Your task to perform on an android device: Check the weather Image 0: 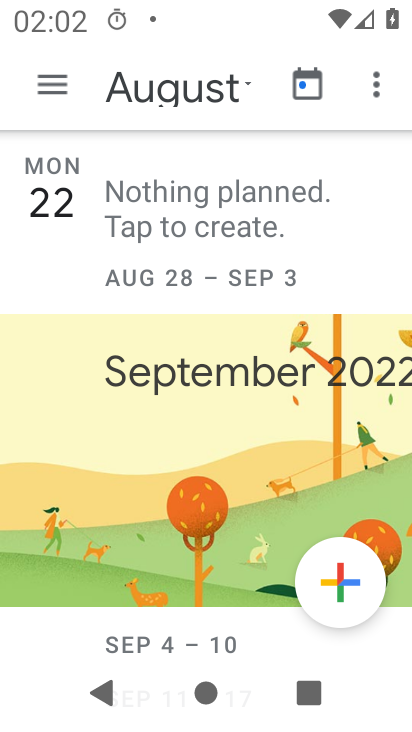
Step 0: press home button
Your task to perform on an android device: Check the weather Image 1: 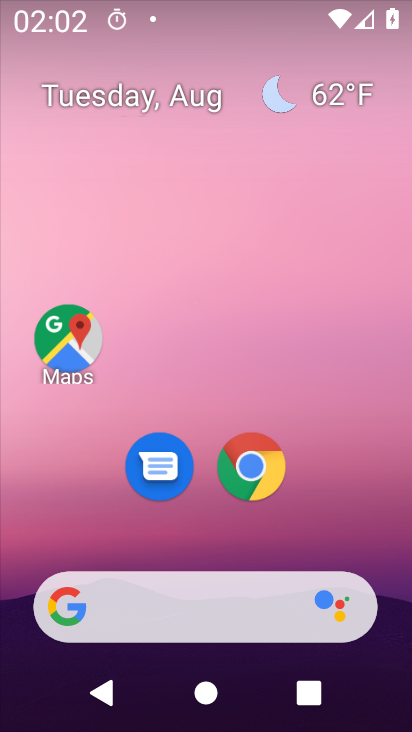
Step 1: click (204, 599)
Your task to perform on an android device: Check the weather Image 2: 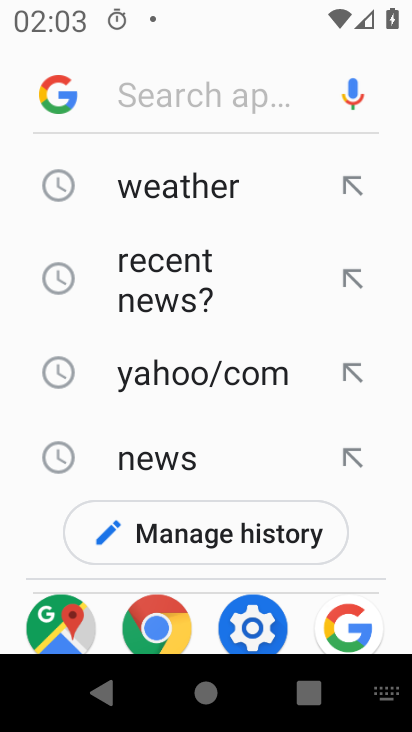
Step 2: click (197, 178)
Your task to perform on an android device: Check the weather Image 3: 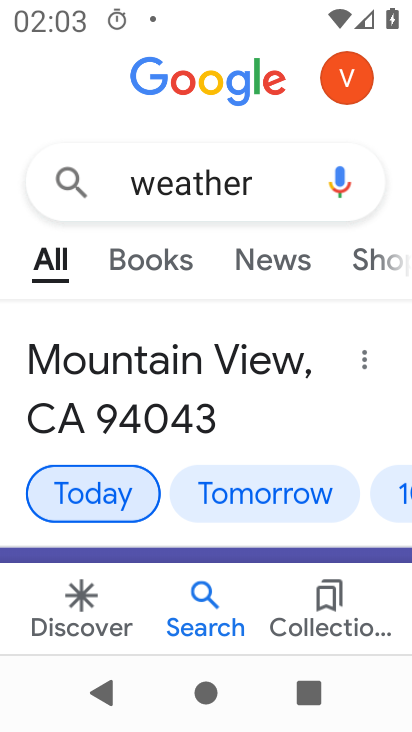
Step 3: task complete